Your task to perform on an android device: move a message to another label in the gmail app Image 0: 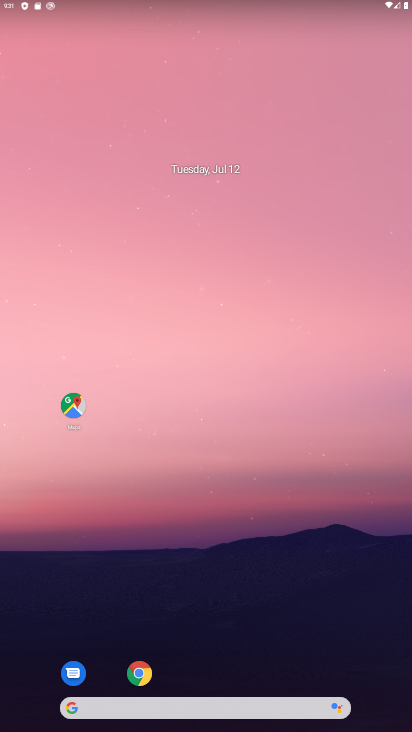
Step 0: drag from (374, 713) to (312, 169)
Your task to perform on an android device: move a message to another label in the gmail app Image 1: 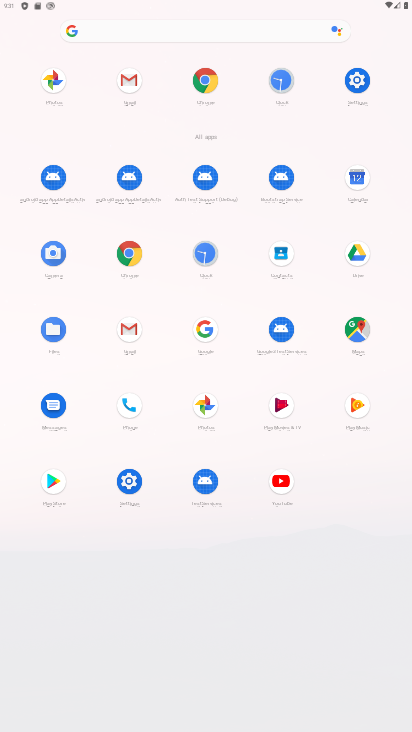
Step 1: click (131, 73)
Your task to perform on an android device: move a message to another label in the gmail app Image 2: 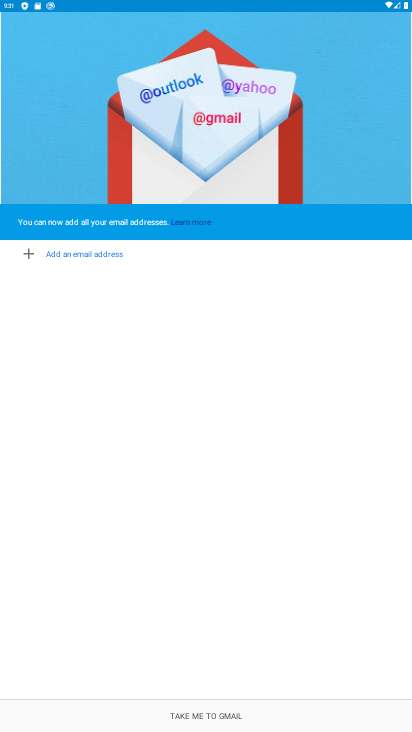
Step 2: click (202, 712)
Your task to perform on an android device: move a message to another label in the gmail app Image 3: 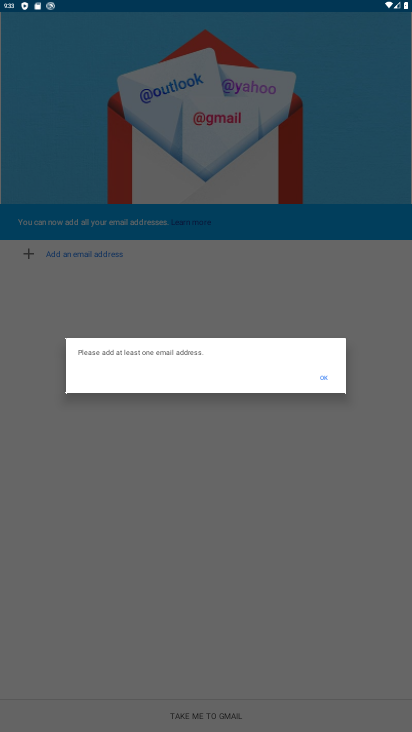
Step 3: task complete